Your task to perform on an android device: turn vacation reply on in the gmail app Image 0: 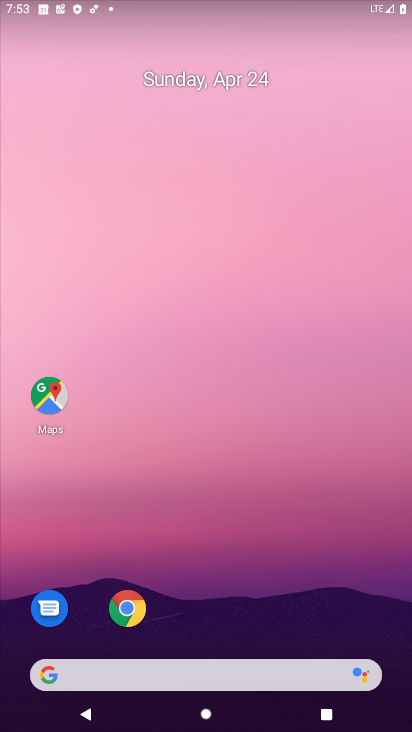
Step 0: drag from (266, 590) to (224, 142)
Your task to perform on an android device: turn vacation reply on in the gmail app Image 1: 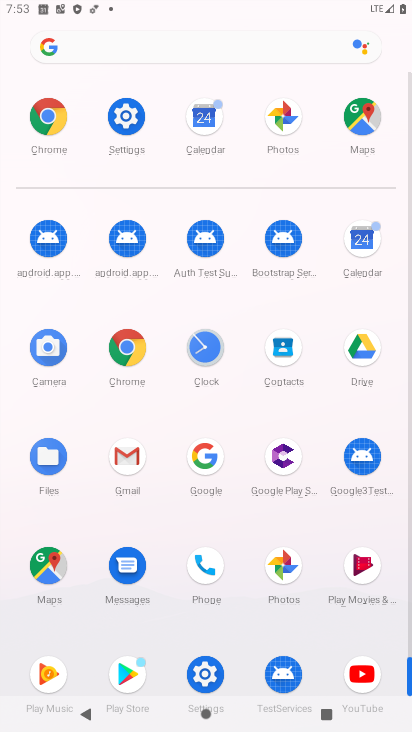
Step 1: drag from (319, 631) to (262, 212)
Your task to perform on an android device: turn vacation reply on in the gmail app Image 2: 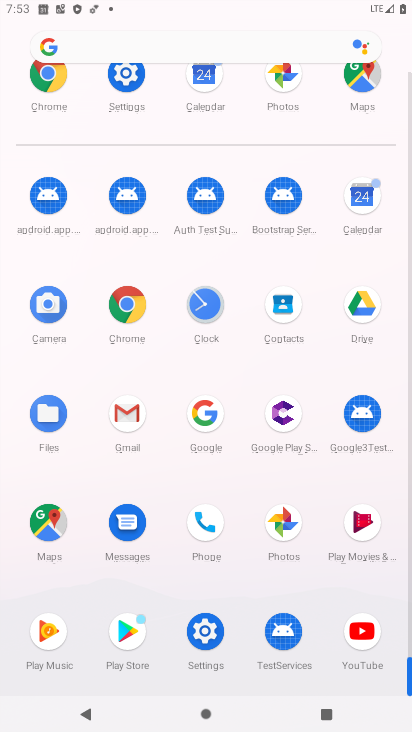
Step 2: click (121, 411)
Your task to perform on an android device: turn vacation reply on in the gmail app Image 3: 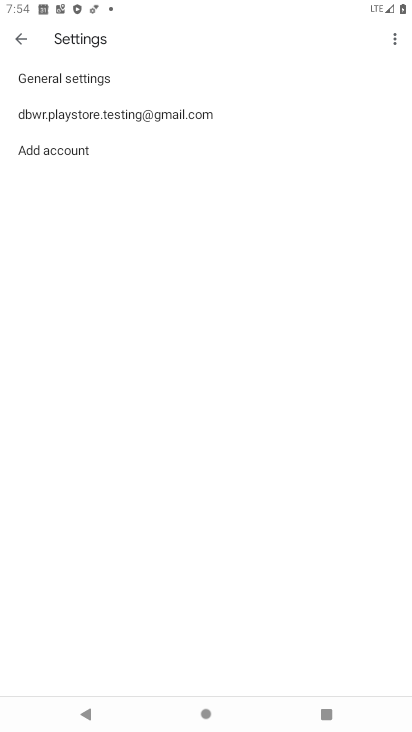
Step 3: click (160, 120)
Your task to perform on an android device: turn vacation reply on in the gmail app Image 4: 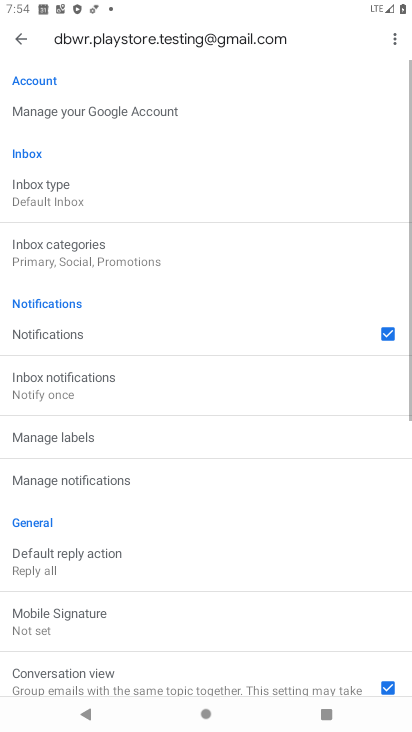
Step 4: drag from (196, 556) to (162, 109)
Your task to perform on an android device: turn vacation reply on in the gmail app Image 5: 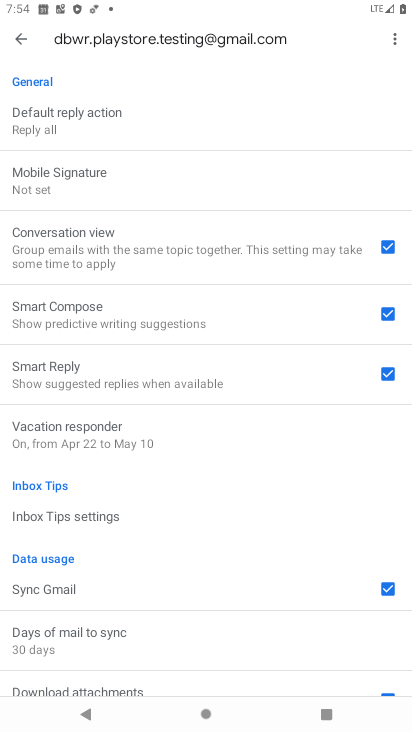
Step 5: click (99, 439)
Your task to perform on an android device: turn vacation reply on in the gmail app Image 6: 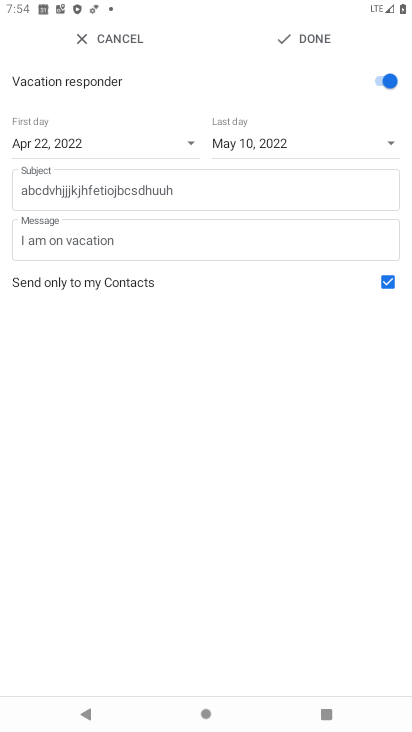
Step 6: task complete